Your task to perform on an android device: open device folders in google photos Image 0: 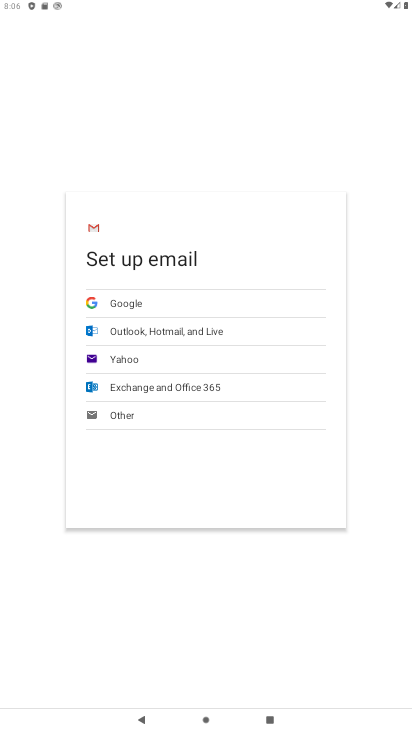
Step 0: press home button
Your task to perform on an android device: open device folders in google photos Image 1: 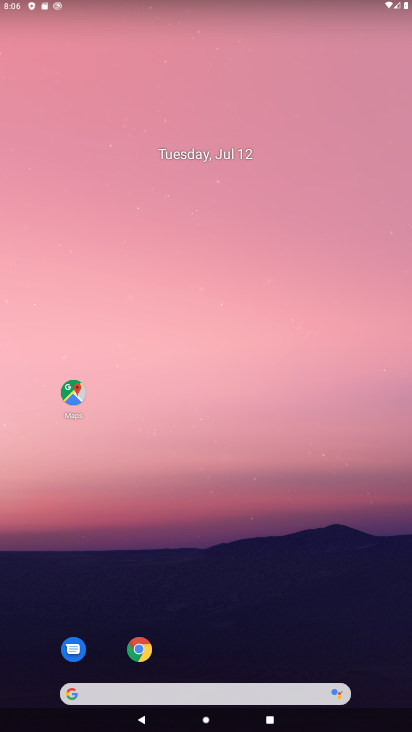
Step 1: drag from (238, 647) to (220, 78)
Your task to perform on an android device: open device folders in google photos Image 2: 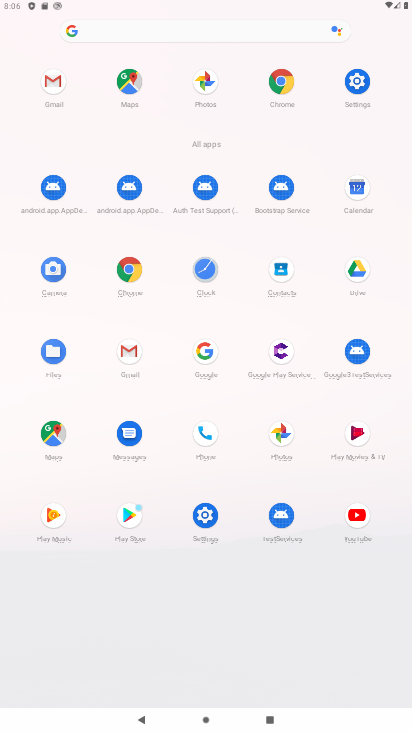
Step 2: click (280, 431)
Your task to perform on an android device: open device folders in google photos Image 3: 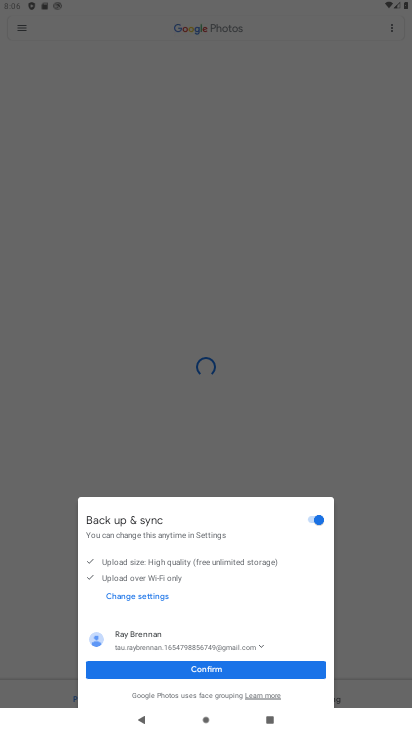
Step 3: click (205, 673)
Your task to perform on an android device: open device folders in google photos Image 4: 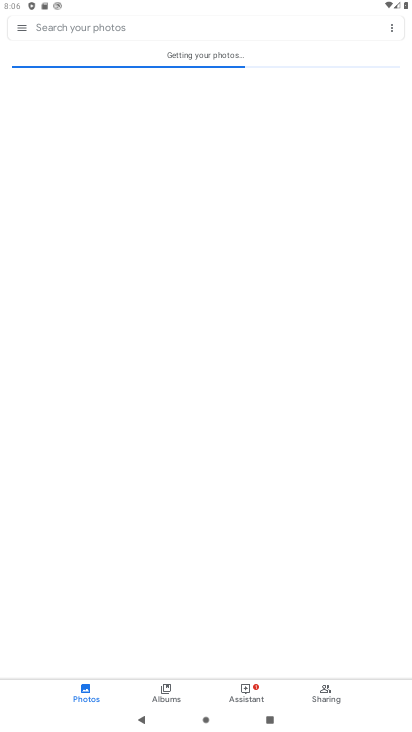
Step 4: click (19, 31)
Your task to perform on an android device: open device folders in google photos Image 5: 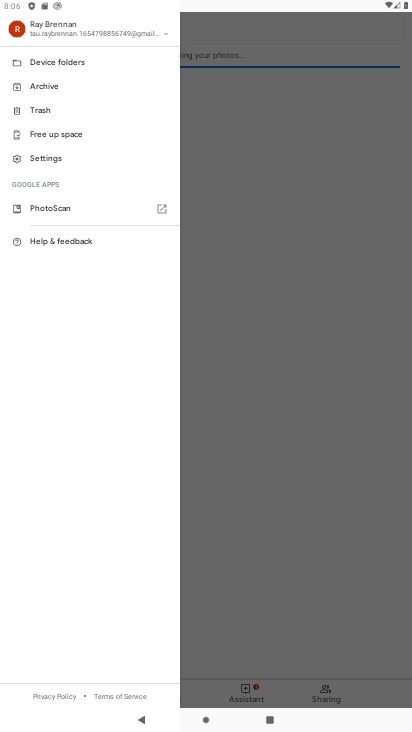
Step 5: click (43, 58)
Your task to perform on an android device: open device folders in google photos Image 6: 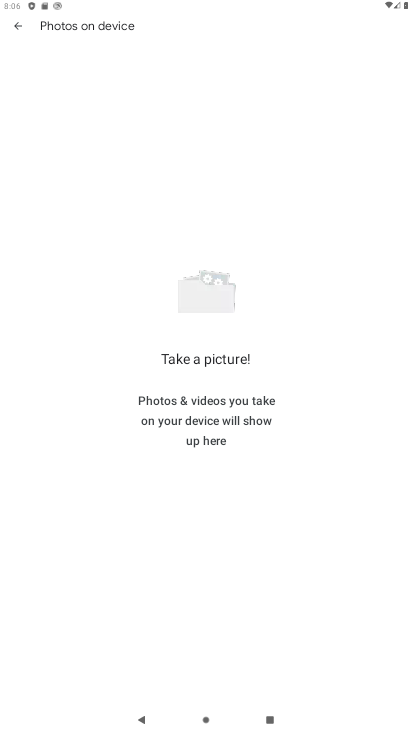
Step 6: task complete